Your task to perform on an android device: open app "Fetch Rewards" Image 0: 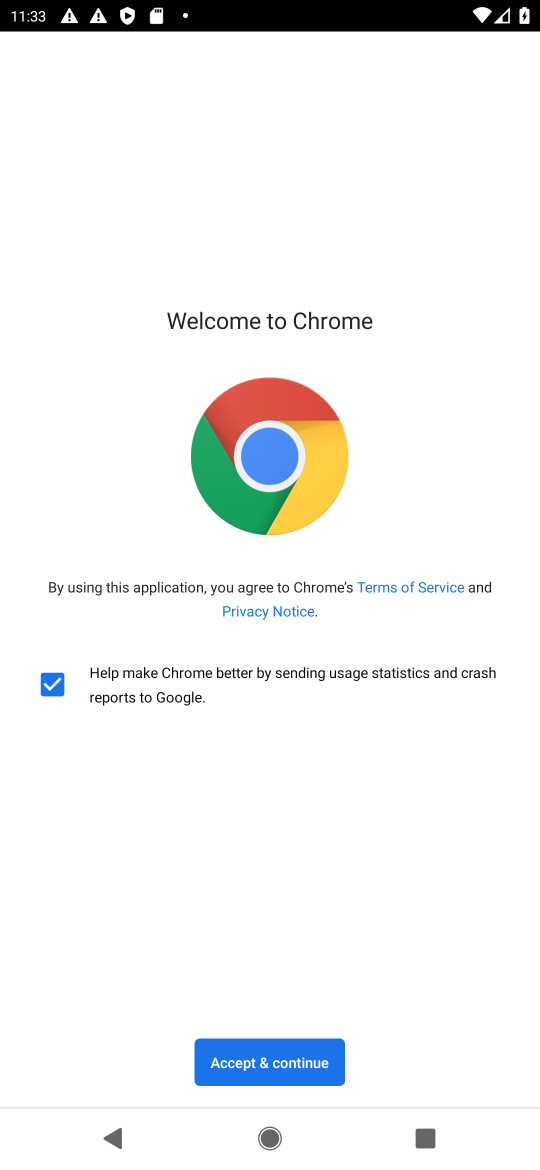
Step 0: press home button
Your task to perform on an android device: open app "Fetch Rewards" Image 1: 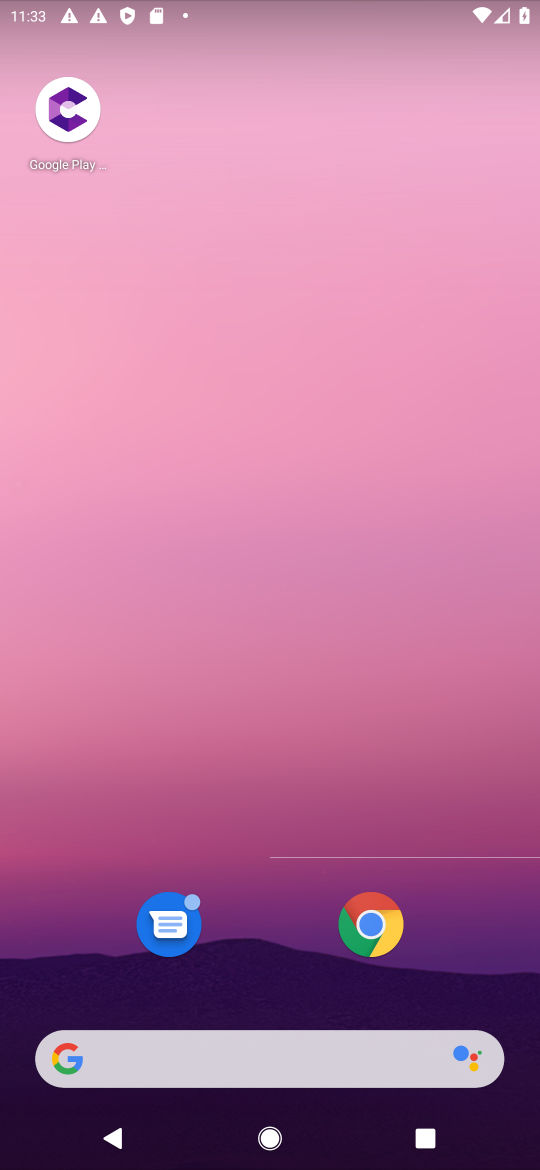
Step 1: drag from (263, 1030) to (223, 250)
Your task to perform on an android device: open app "Fetch Rewards" Image 2: 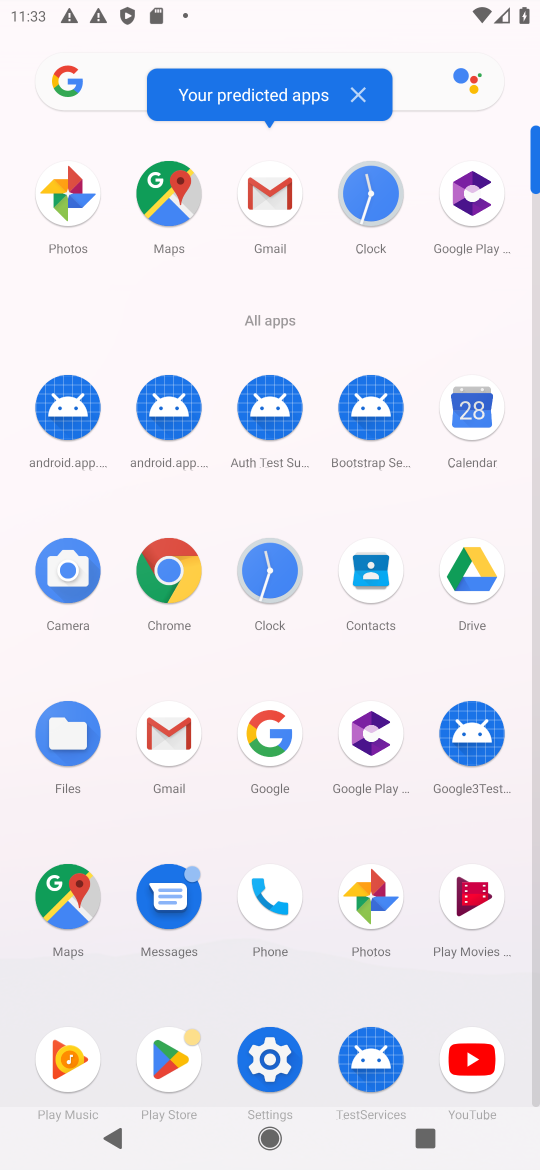
Step 2: click (161, 1066)
Your task to perform on an android device: open app "Fetch Rewards" Image 3: 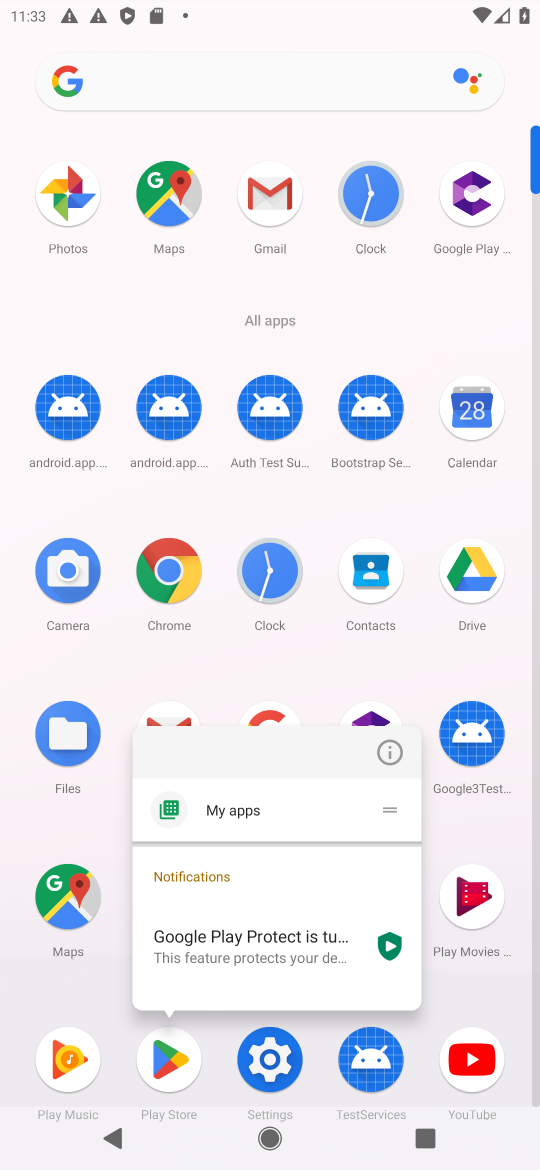
Step 3: click (161, 1066)
Your task to perform on an android device: open app "Fetch Rewards" Image 4: 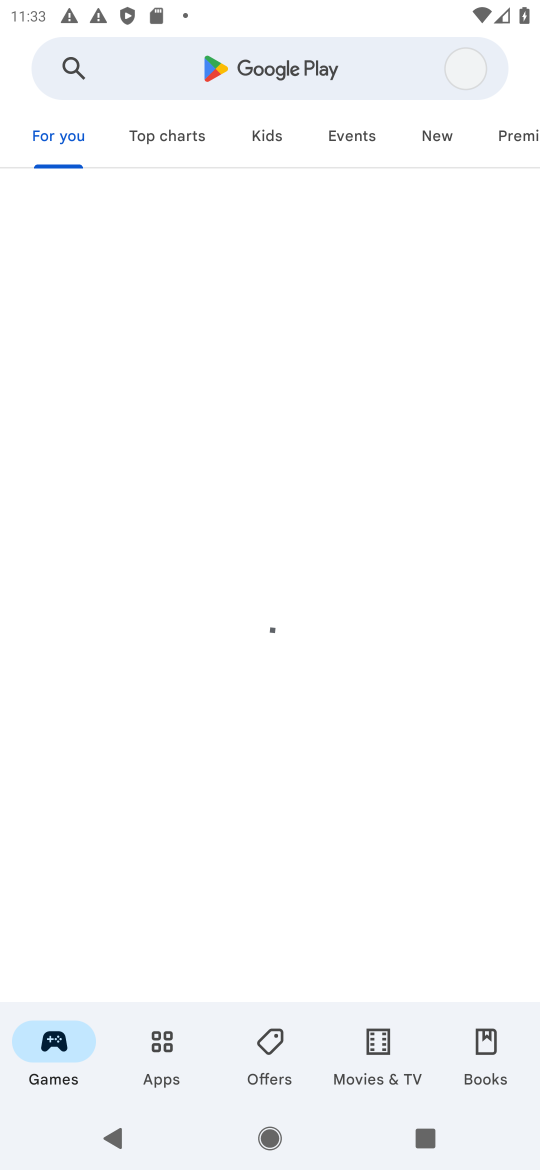
Step 4: click (283, 58)
Your task to perform on an android device: open app "Fetch Rewards" Image 5: 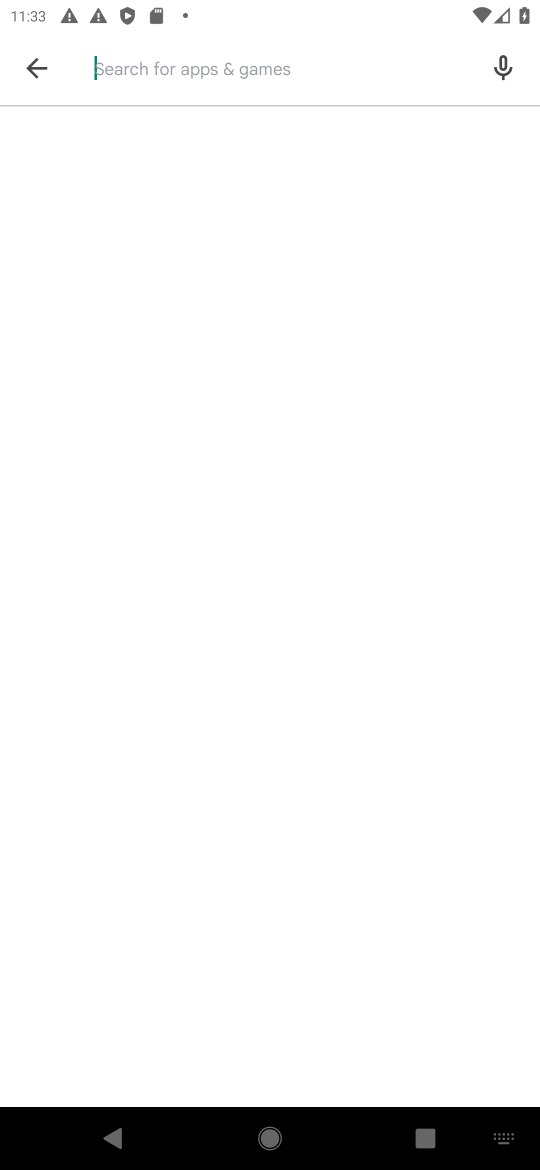
Step 5: type "Fetch Rewards"
Your task to perform on an android device: open app "Fetch Rewards" Image 6: 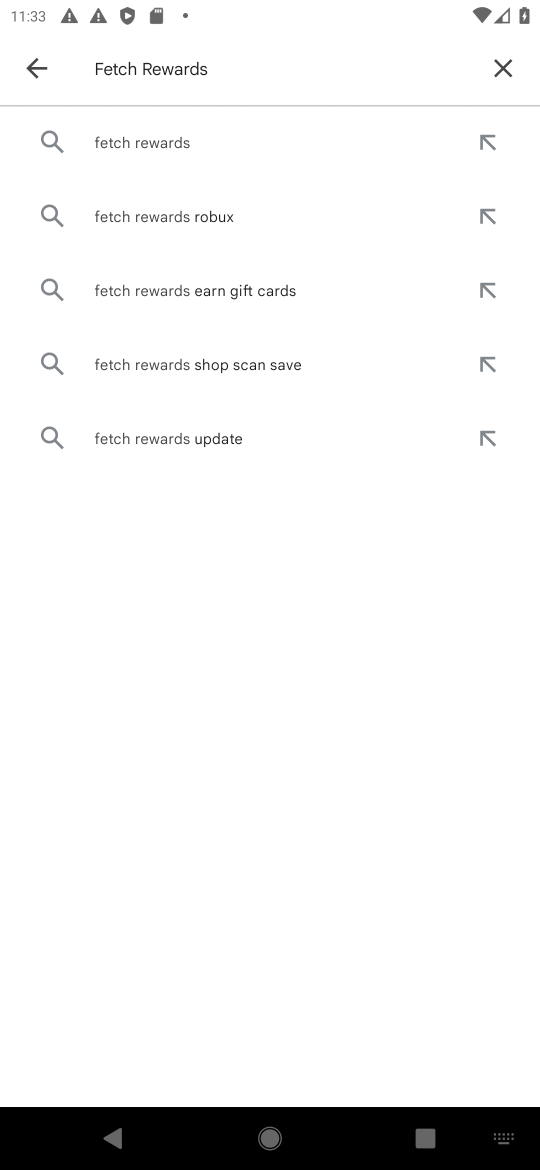
Step 6: click (197, 140)
Your task to perform on an android device: open app "Fetch Rewards" Image 7: 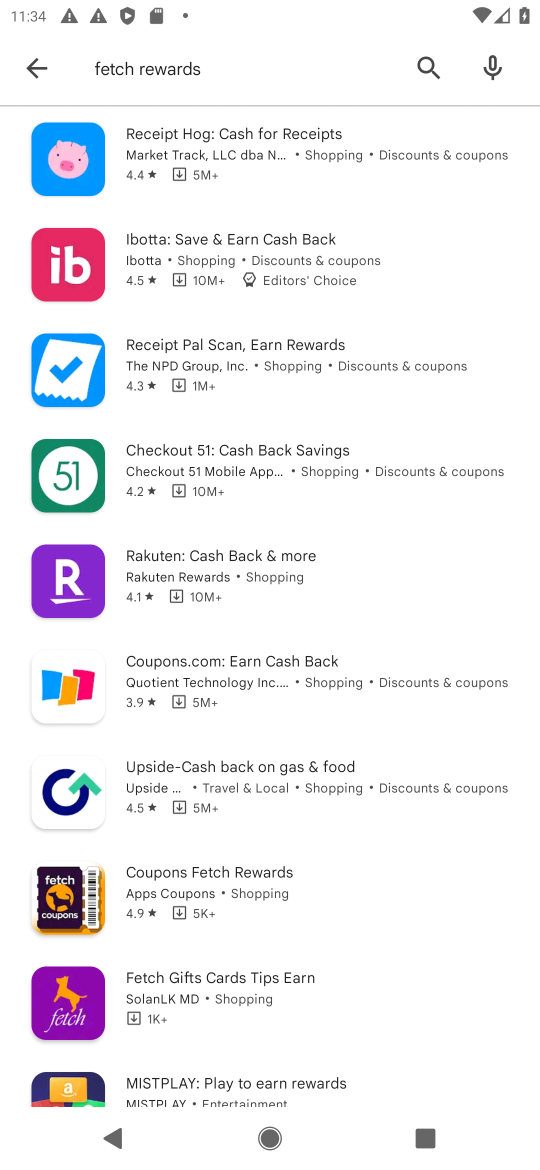
Step 7: task complete